Your task to perform on an android device: Open my contact list Image 0: 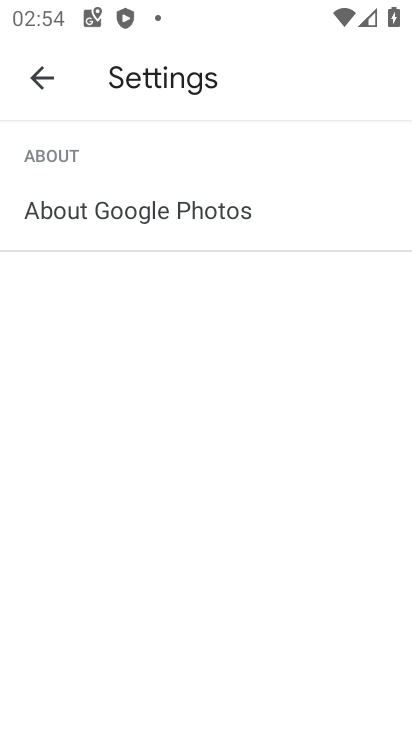
Step 0: press home button
Your task to perform on an android device: Open my contact list Image 1: 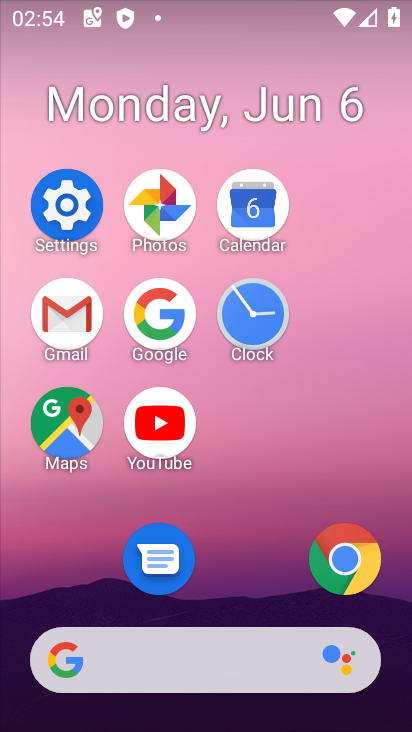
Step 1: drag from (217, 555) to (315, 78)
Your task to perform on an android device: Open my contact list Image 2: 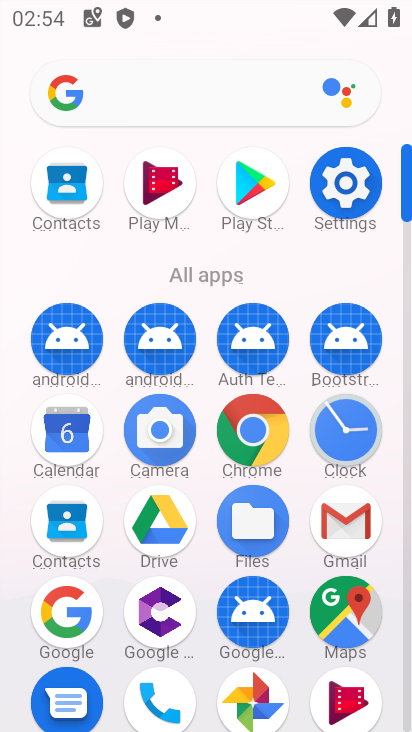
Step 2: click (72, 525)
Your task to perform on an android device: Open my contact list Image 3: 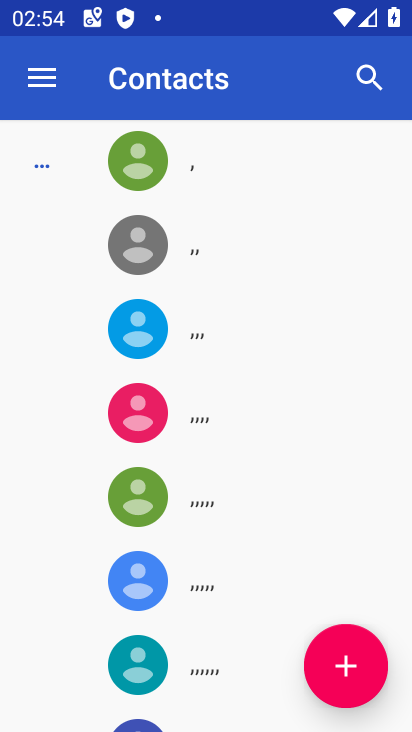
Step 3: task complete